Your task to perform on an android device: open a bookmark in the chrome app Image 0: 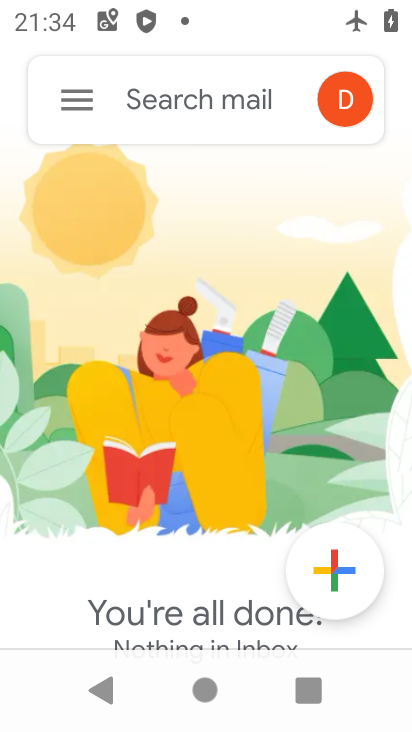
Step 0: click (83, 101)
Your task to perform on an android device: open a bookmark in the chrome app Image 1: 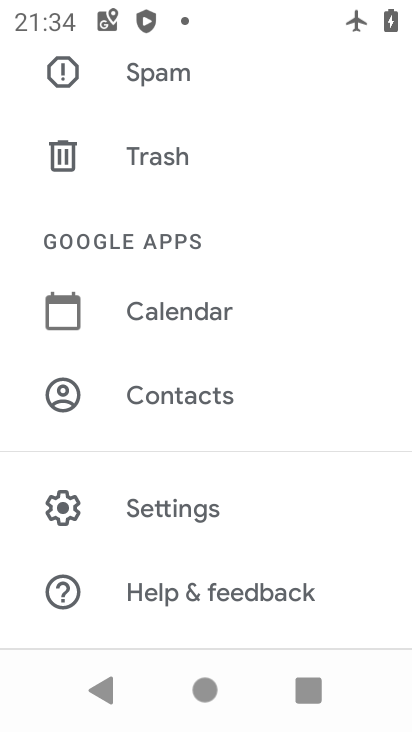
Step 1: click (210, 497)
Your task to perform on an android device: open a bookmark in the chrome app Image 2: 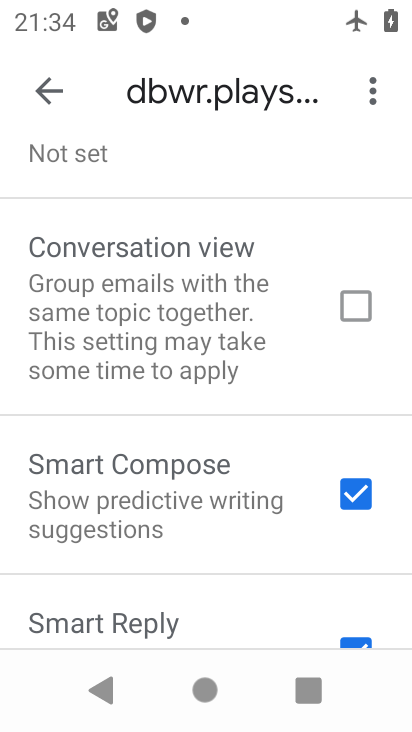
Step 2: press home button
Your task to perform on an android device: open a bookmark in the chrome app Image 3: 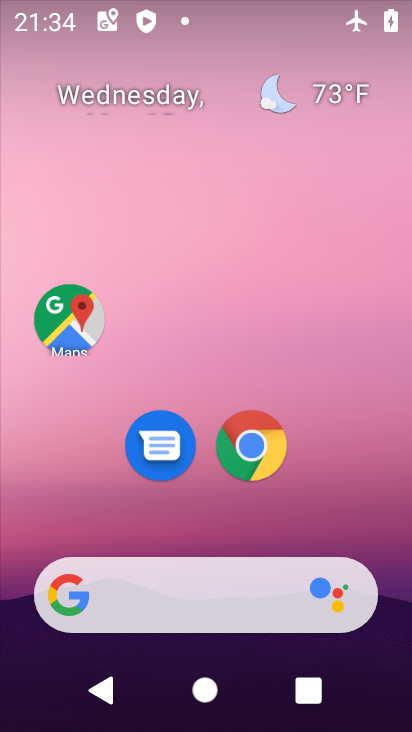
Step 3: click (256, 431)
Your task to perform on an android device: open a bookmark in the chrome app Image 4: 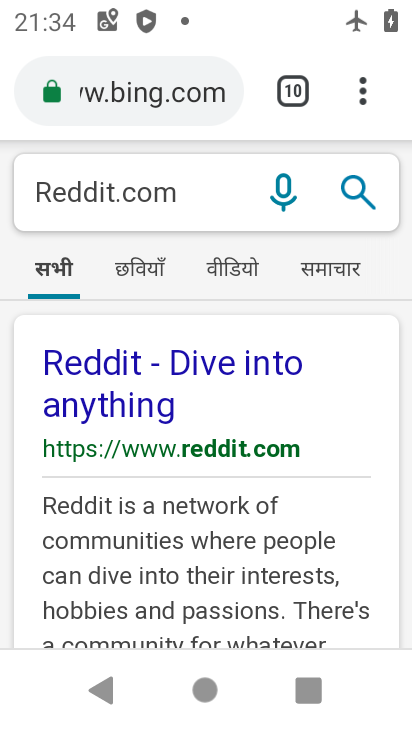
Step 4: click (370, 92)
Your task to perform on an android device: open a bookmark in the chrome app Image 5: 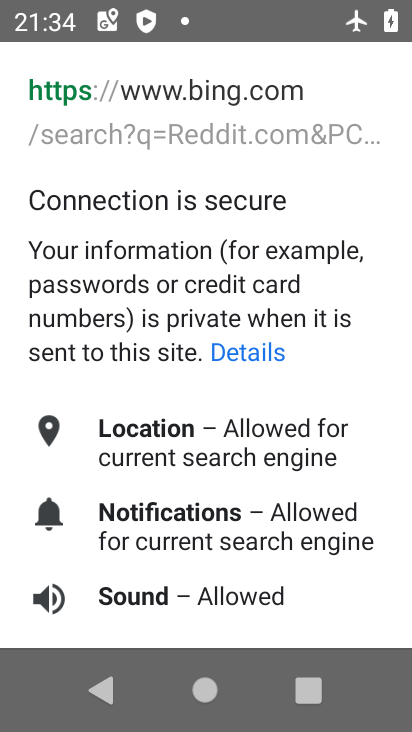
Step 5: press back button
Your task to perform on an android device: open a bookmark in the chrome app Image 6: 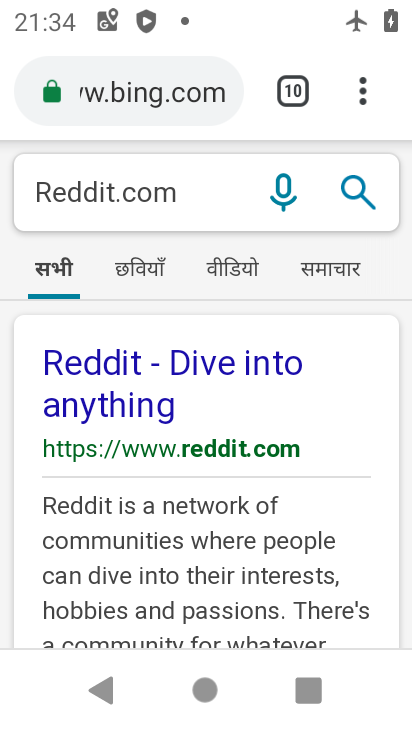
Step 6: click (363, 95)
Your task to perform on an android device: open a bookmark in the chrome app Image 7: 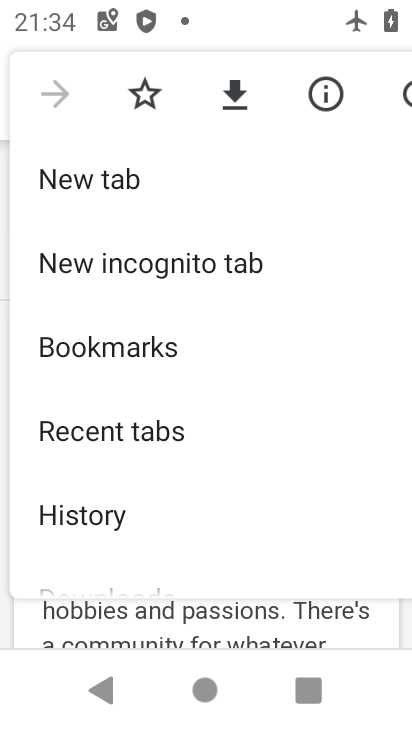
Step 7: click (121, 340)
Your task to perform on an android device: open a bookmark in the chrome app Image 8: 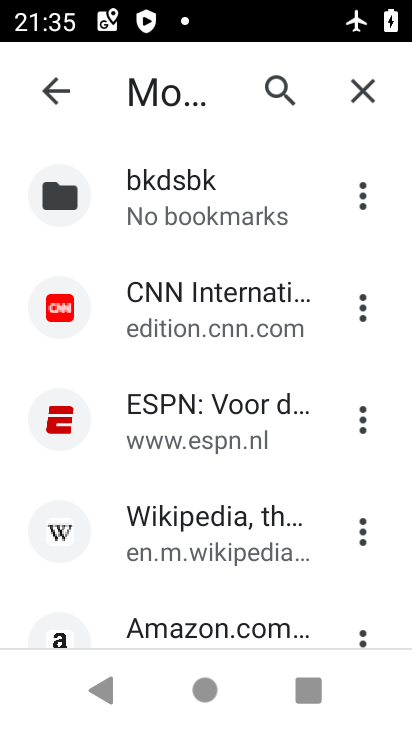
Step 8: task complete